Your task to perform on an android device: delete browsing data in the chrome app Image 0: 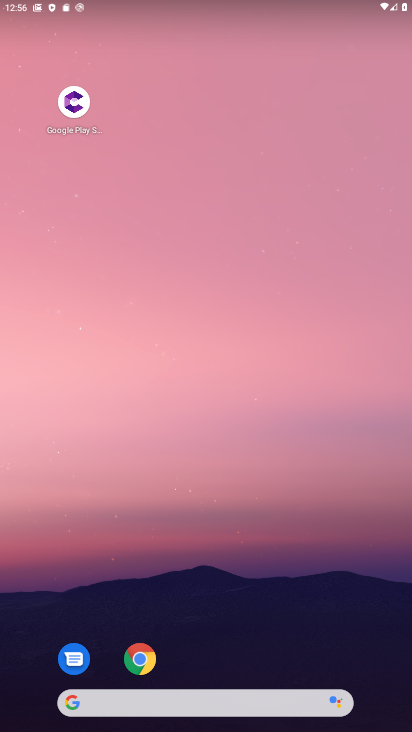
Step 0: click (130, 662)
Your task to perform on an android device: delete browsing data in the chrome app Image 1: 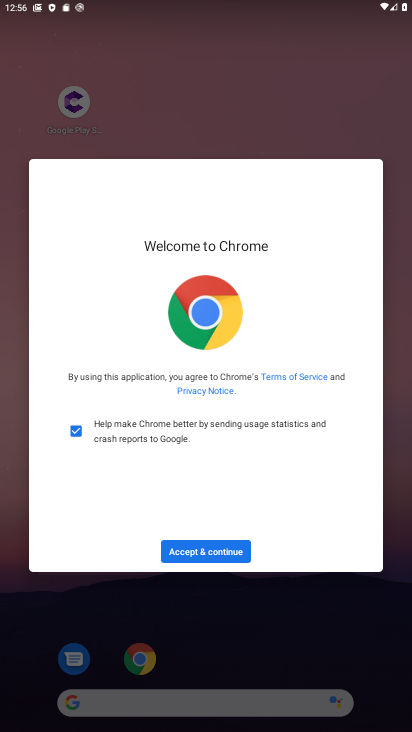
Step 1: click (235, 542)
Your task to perform on an android device: delete browsing data in the chrome app Image 2: 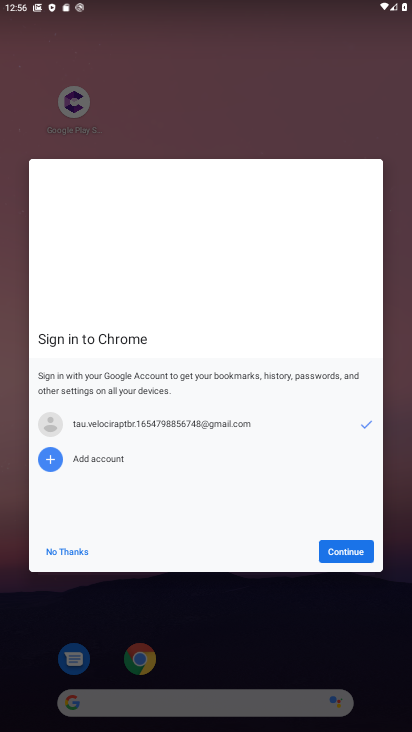
Step 2: click (235, 542)
Your task to perform on an android device: delete browsing data in the chrome app Image 3: 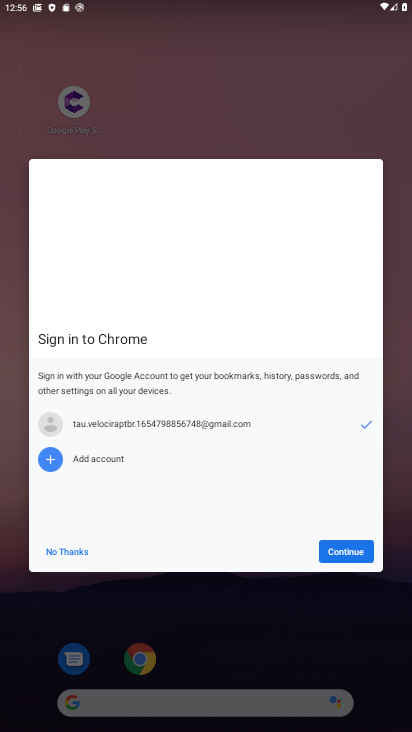
Step 3: click (362, 556)
Your task to perform on an android device: delete browsing data in the chrome app Image 4: 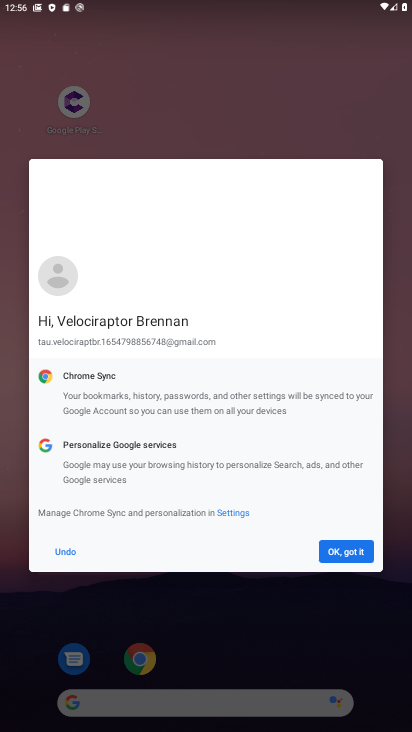
Step 4: click (362, 556)
Your task to perform on an android device: delete browsing data in the chrome app Image 5: 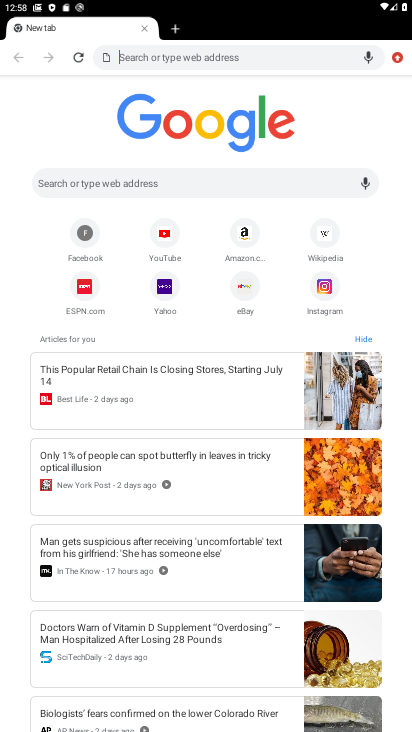
Step 5: click (397, 55)
Your task to perform on an android device: delete browsing data in the chrome app Image 6: 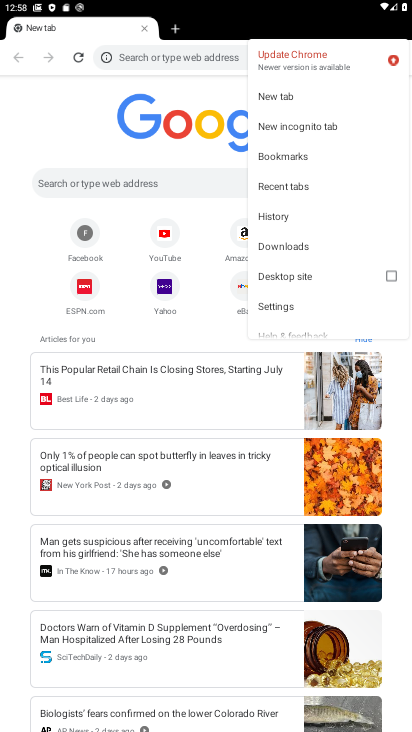
Step 6: click (276, 218)
Your task to perform on an android device: delete browsing data in the chrome app Image 7: 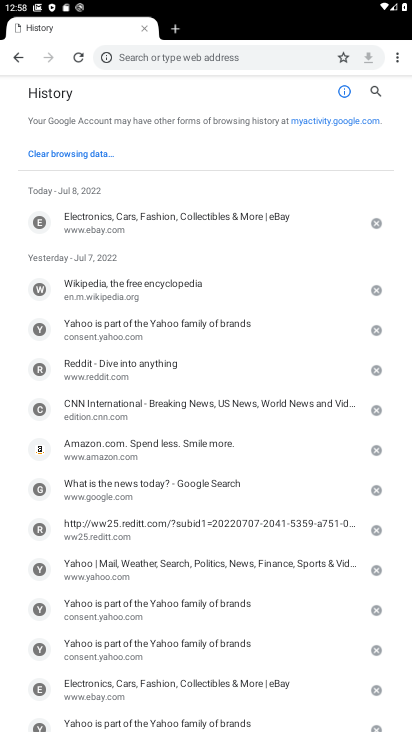
Step 7: click (78, 153)
Your task to perform on an android device: delete browsing data in the chrome app Image 8: 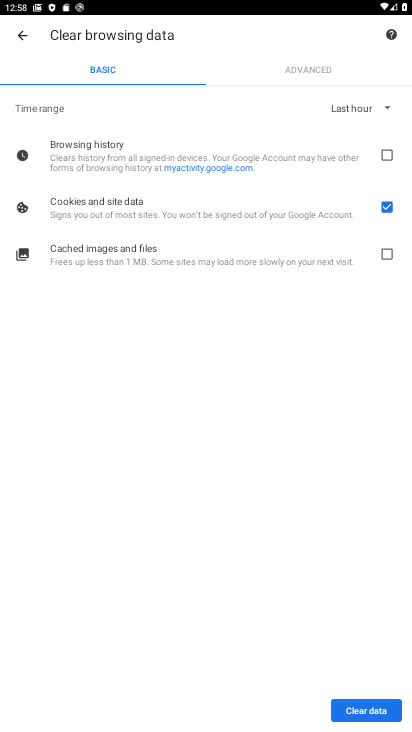
Step 8: click (347, 105)
Your task to perform on an android device: delete browsing data in the chrome app Image 9: 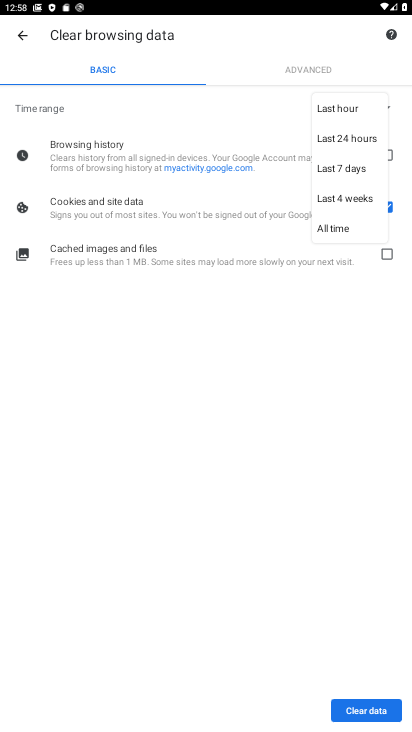
Step 9: click (345, 231)
Your task to perform on an android device: delete browsing data in the chrome app Image 10: 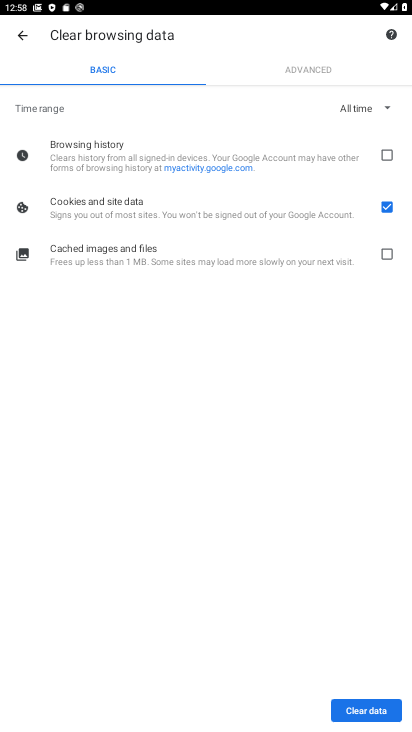
Step 10: click (390, 253)
Your task to perform on an android device: delete browsing data in the chrome app Image 11: 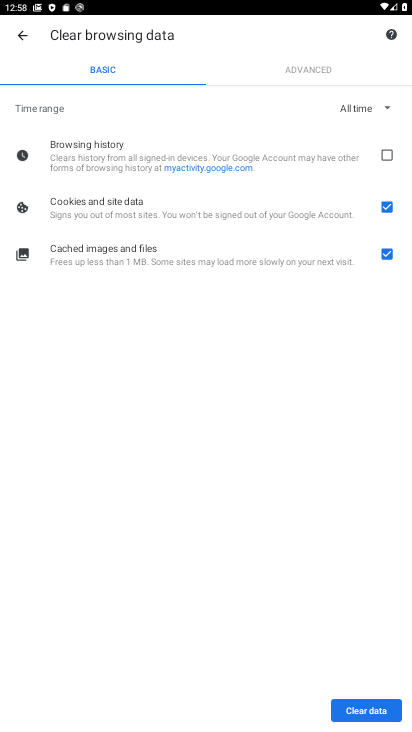
Step 11: click (386, 154)
Your task to perform on an android device: delete browsing data in the chrome app Image 12: 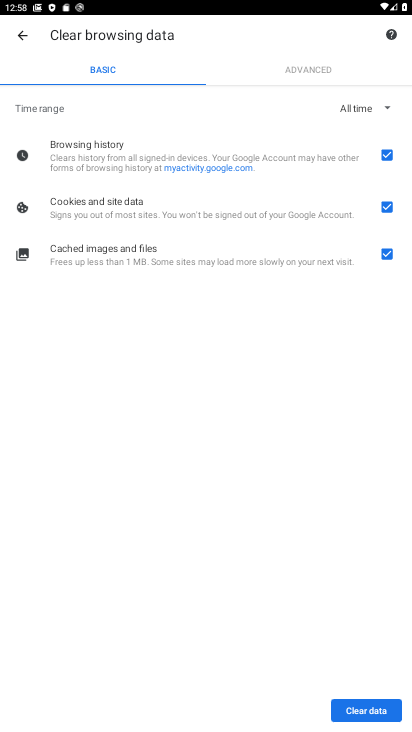
Step 12: click (357, 706)
Your task to perform on an android device: delete browsing data in the chrome app Image 13: 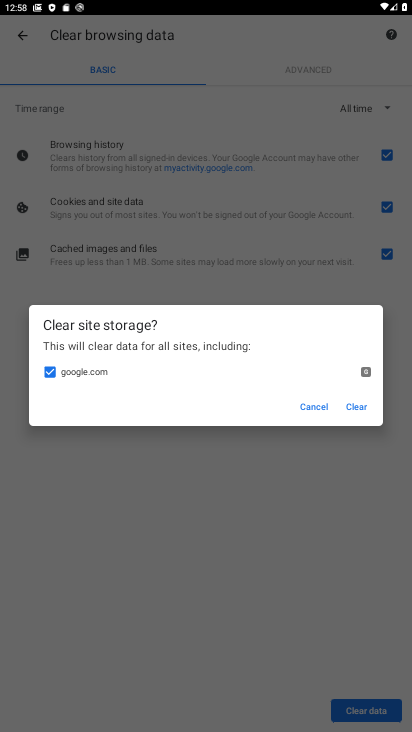
Step 13: click (359, 410)
Your task to perform on an android device: delete browsing data in the chrome app Image 14: 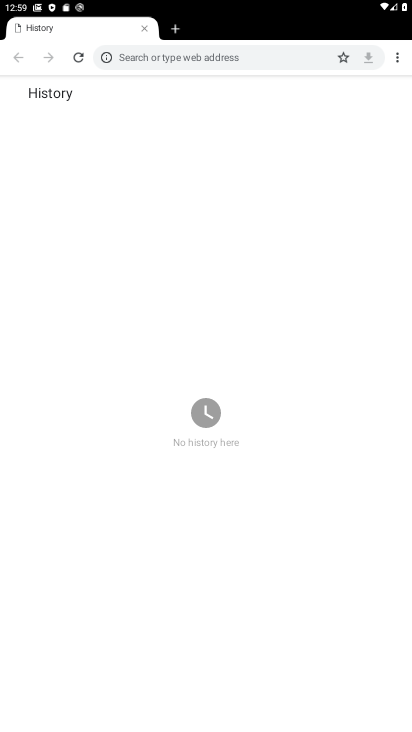
Step 14: task complete